Your task to perform on an android device: What's on my calendar today? Image 0: 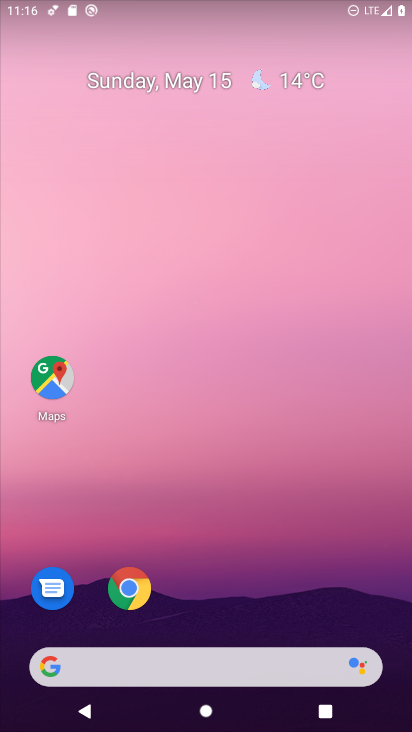
Step 0: drag from (239, 613) to (308, 124)
Your task to perform on an android device: What's on my calendar today? Image 1: 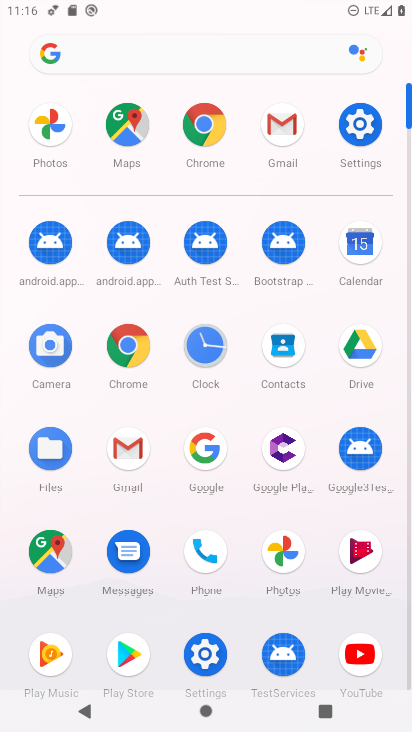
Step 1: click (359, 261)
Your task to perform on an android device: What's on my calendar today? Image 2: 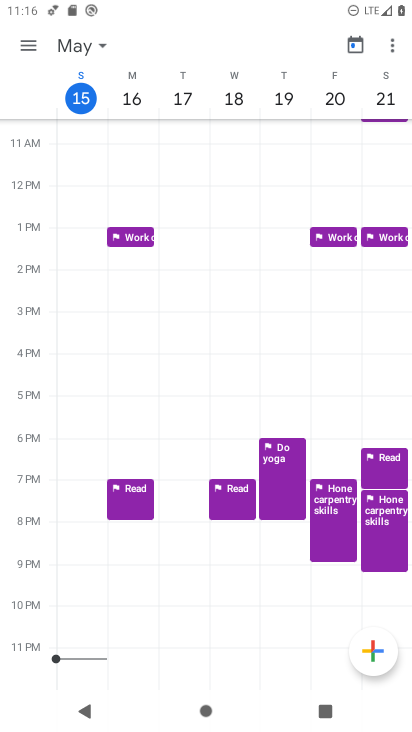
Step 2: click (25, 36)
Your task to perform on an android device: What's on my calendar today? Image 3: 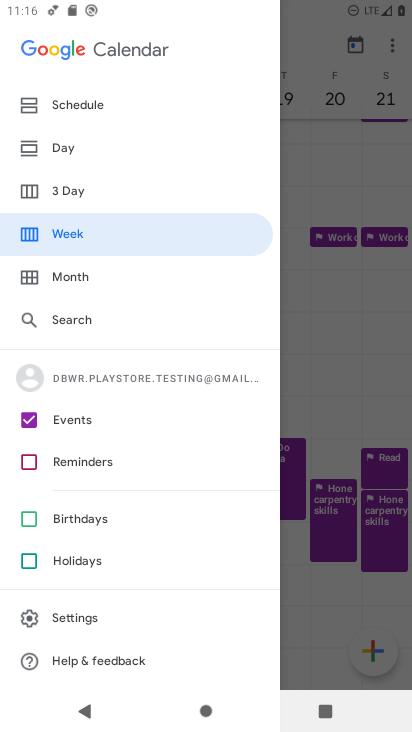
Step 3: click (75, 146)
Your task to perform on an android device: What's on my calendar today? Image 4: 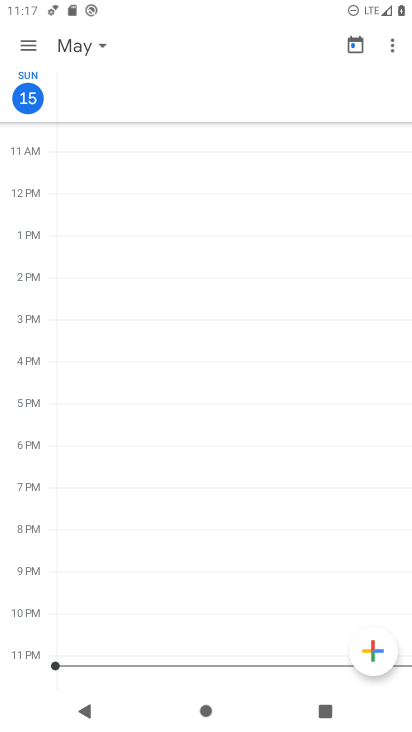
Step 4: task complete